Your task to perform on an android device: open chrome and create a bookmark for the current page Image 0: 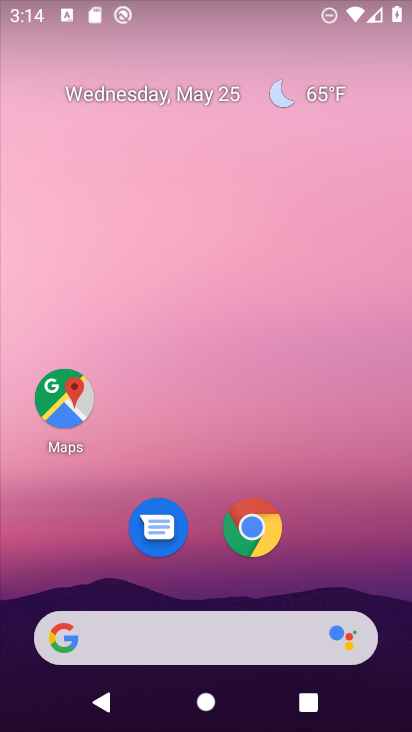
Step 0: drag from (311, 595) to (285, 44)
Your task to perform on an android device: open chrome and create a bookmark for the current page Image 1: 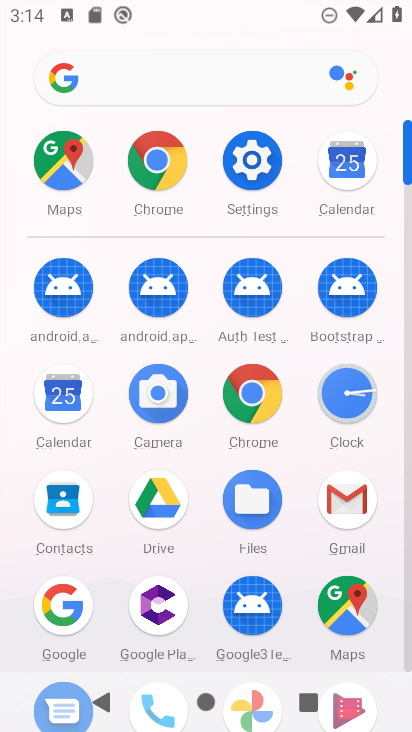
Step 1: click (259, 401)
Your task to perform on an android device: open chrome and create a bookmark for the current page Image 2: 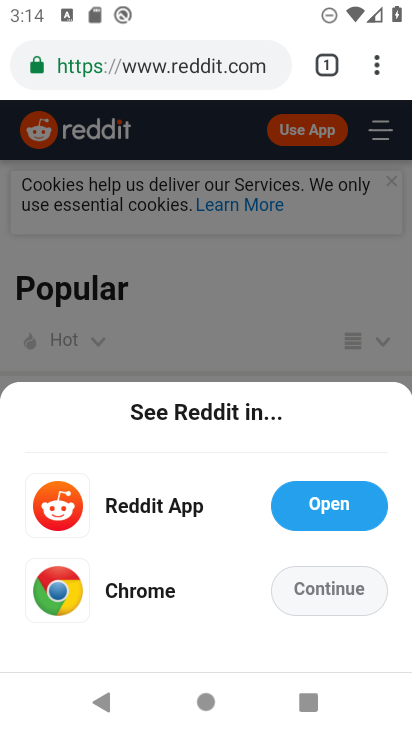
Step 2: click (374, 67)
Your task to perform on an android device: open chrome and create a bookmark for the current page Image 3: 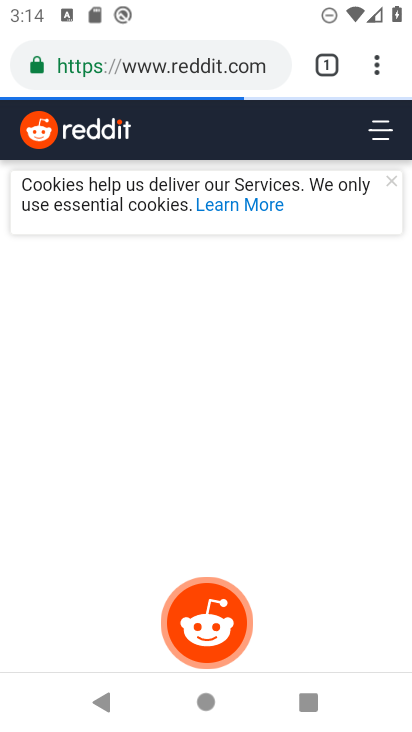
Step 3: task complete